Your task to perform on an android device: change the clock display to digital Image 0: 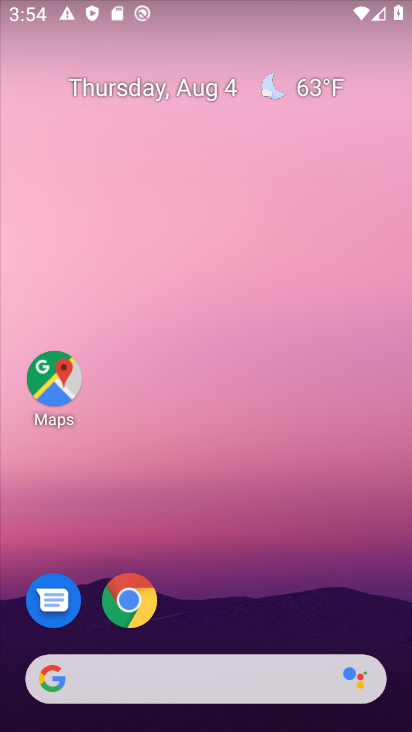
Step 0: drag from (288, 525) to (213, 53)
Your task to perform on an android device: change the clock display to digital Image 1: 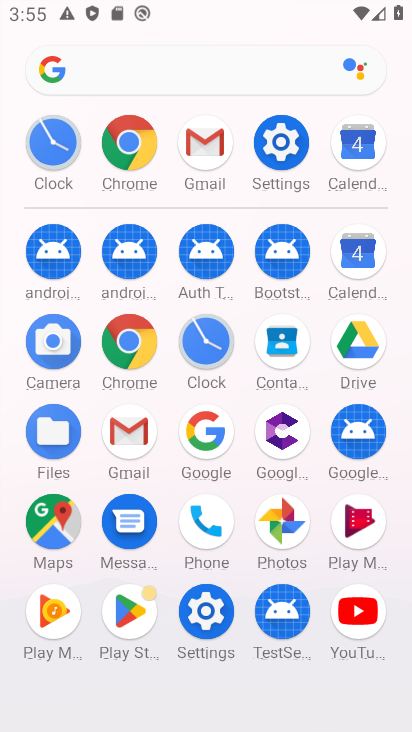
Step 1: click (203, 334)
Your task to perform on an android device: change the clock display to digital Image 2: 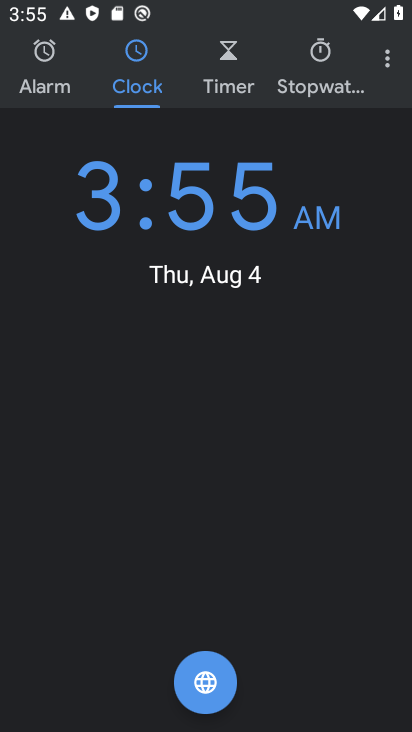
Step 2: click (398, 58)
Your task to perform on an android device: change the clock display to digital Image 3: 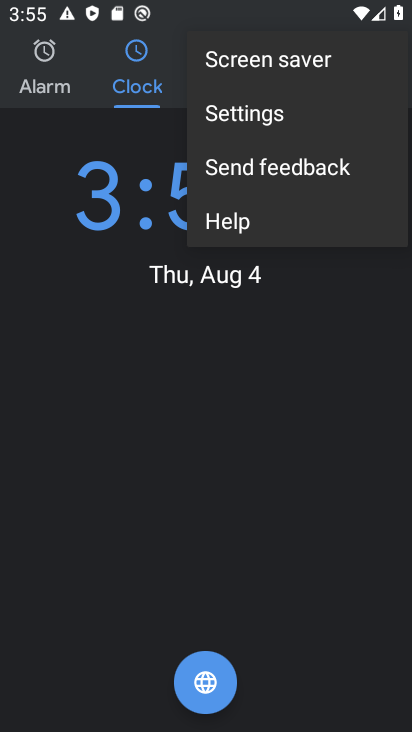
Step 3: click (258, 125)
Your task to perform on an android device: change the clock display to digital Image 4: 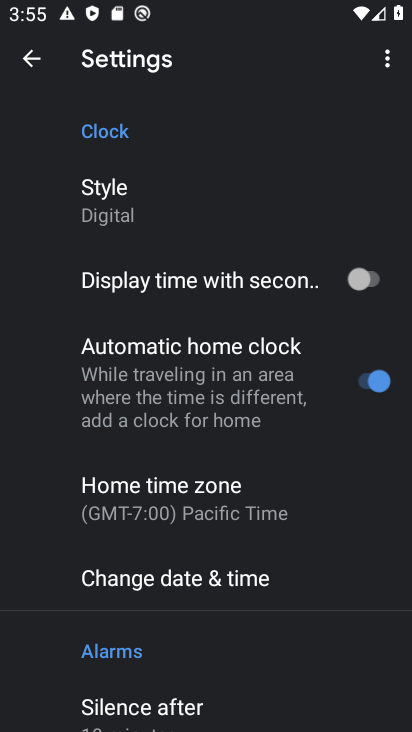
Step 4: task complete